Your task to perform on an android device: change the clock display to analog Image 0: 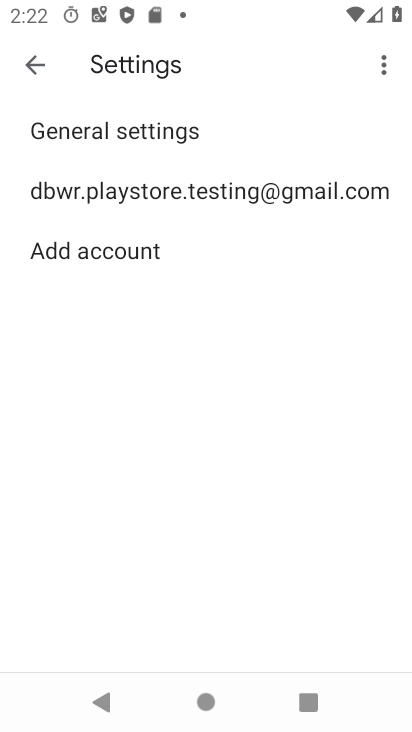
Step 0: press home button
Your task to perform on an android device: change the clock display to analog Image 1: 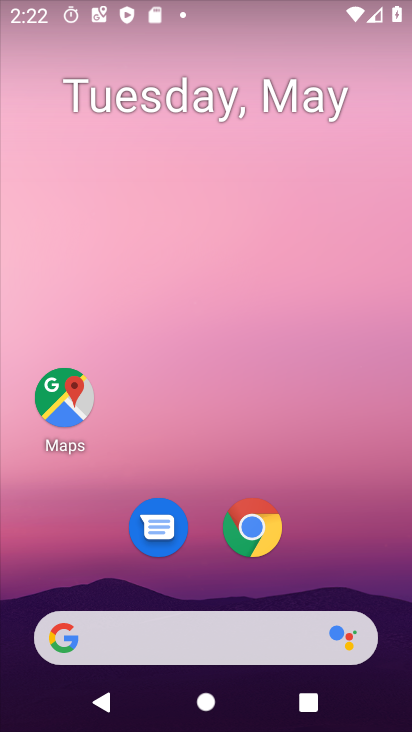
Step 1: drag from (284, 663) to (260, 253)
Your task to perform on an android device: change the clock display to analog Image 2: 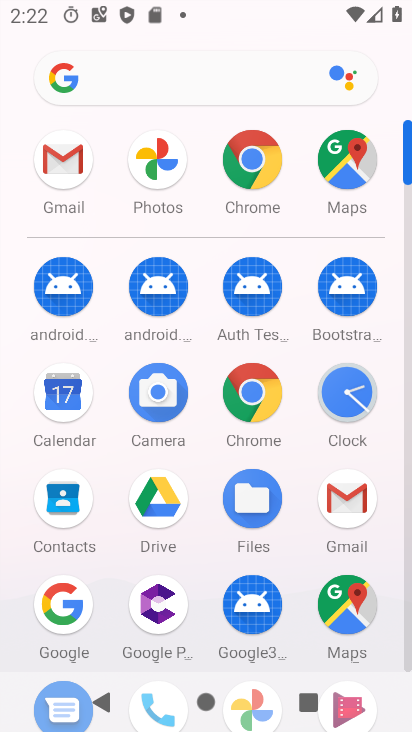
Step 2: click (346, 393)
Your task to perform on an android device: change the clock display to analog Image 3: 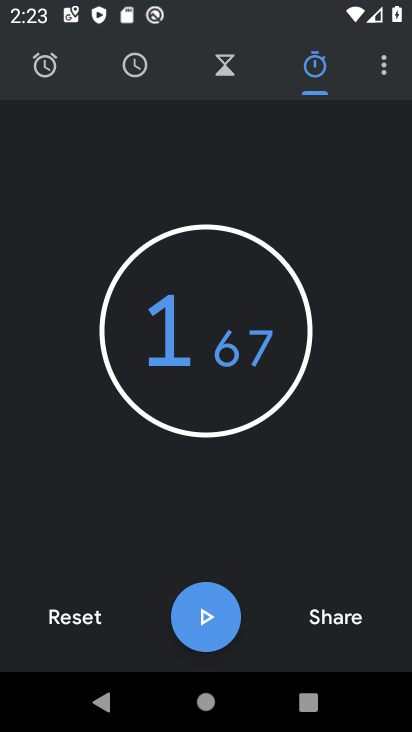
Step 3: click (374, 63)
Your task to perform on an android device: change the clock display to analog Image 4: 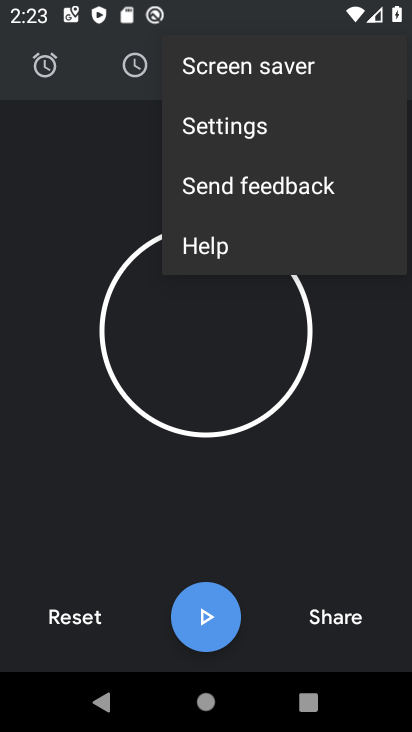
Step 4: click (263, 129)
Your task to perform on an android device: change the clock display to analog Image 5: 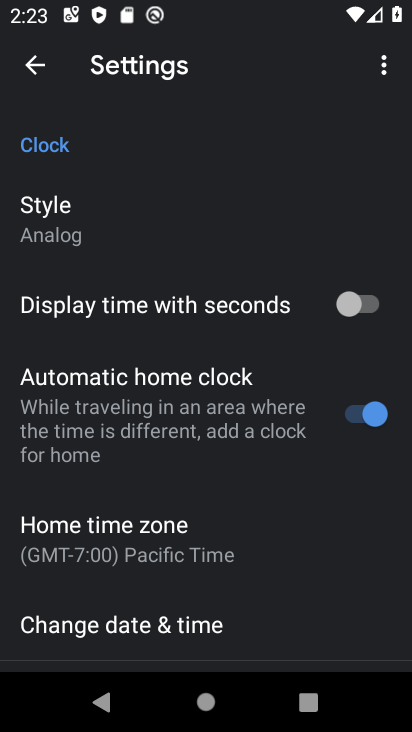
Step 5: click (54, 231)
Your task to perform on an android device: change the clock display to analog Image 6: 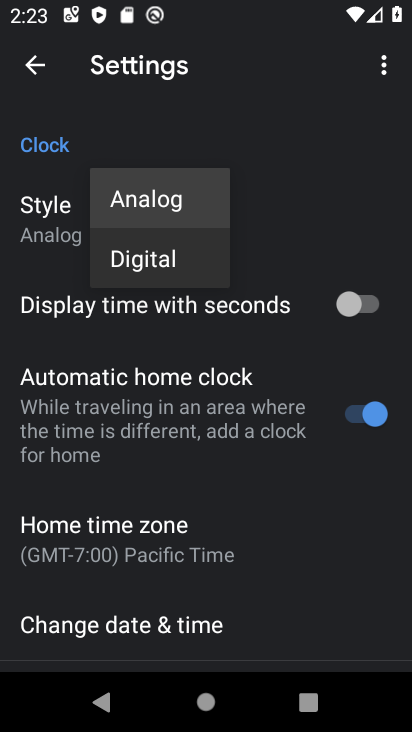
Step 6: click (155, 212)
Your task to perform on an android device: change the clock display to analog Image 7: 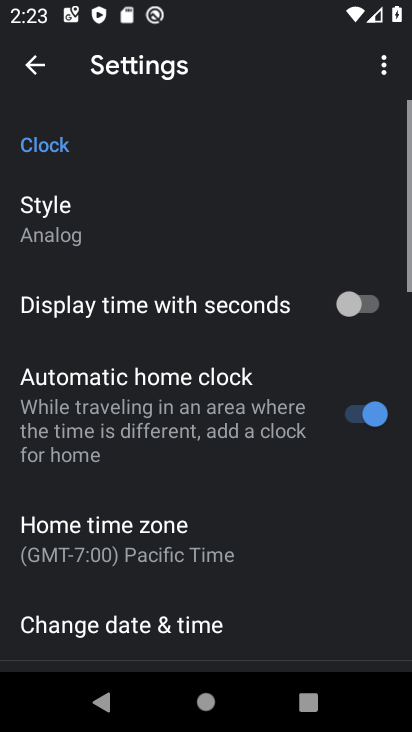
Step 7: task complete